Your task to perform on an android device: star an email in the gmail app Image 0: 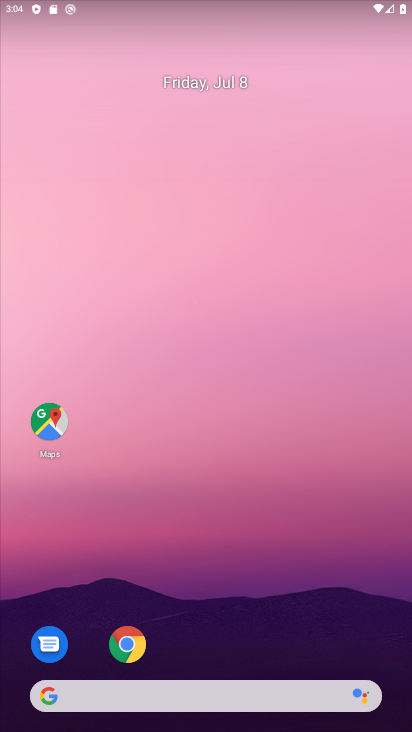
Step 0: drag from (126, 531) to (383, 21)
Your task to perform on an android device: star an email in the gmail app Image 1: 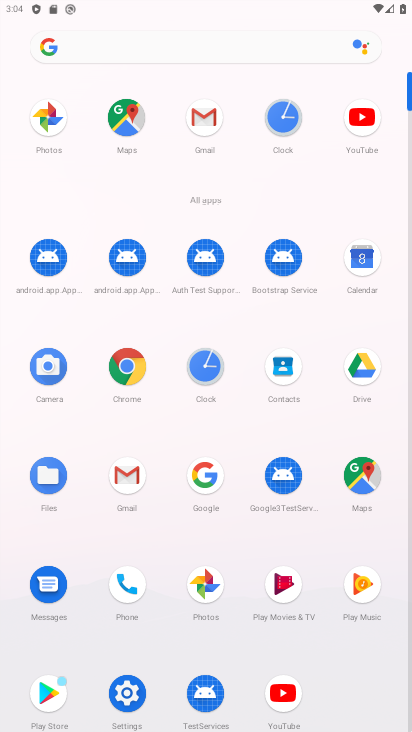
Step 1: click (129, 469)
Your task to perform on an android device: star an email in the gmail app Image 2: 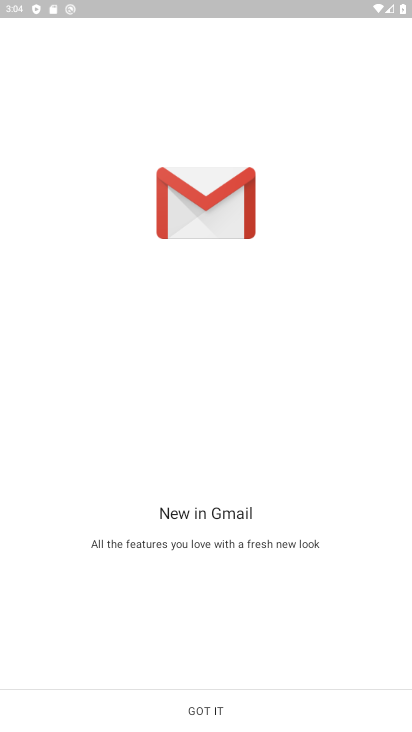
Step 2: click (170, 696)
Your task to perform on an android device: star an email in the gmail app Image 3: 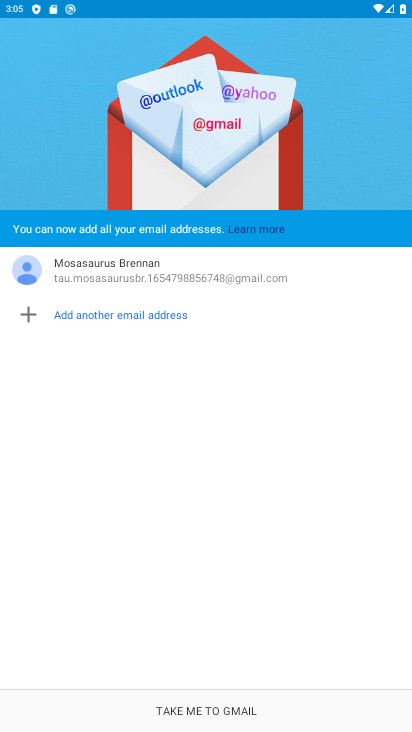
Step 3: click (175, 700)
Your task to perform on an android device: star an email in the gmail app Image 4: 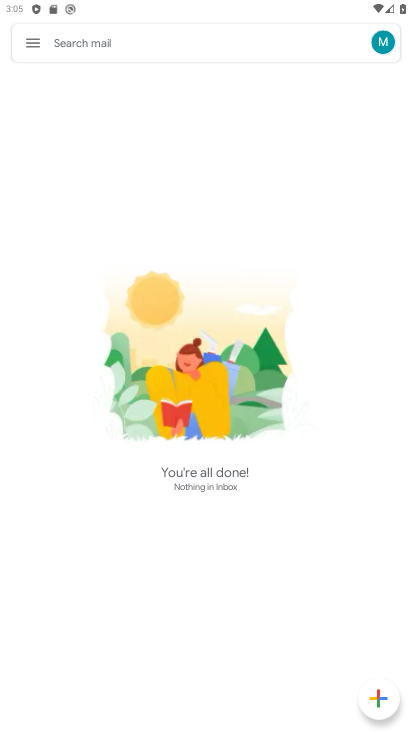
Step 4: click (37, 39)
Your task to perform on an android device: star an email in the gmail app Image 5: 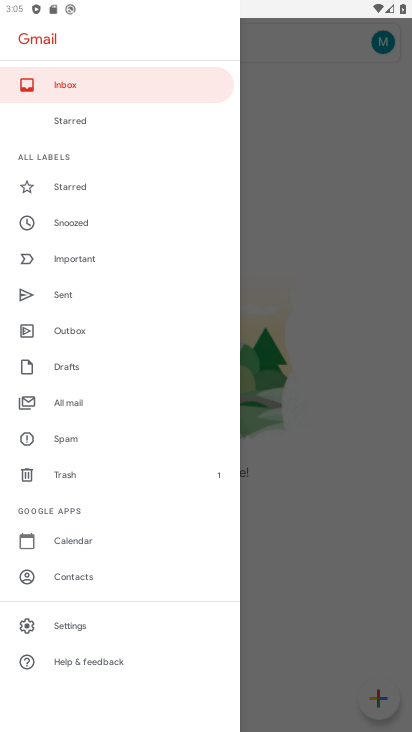
Step 5: click (61, 71)
Your task to perform on an android device: star an email in the gmail app Image 6: 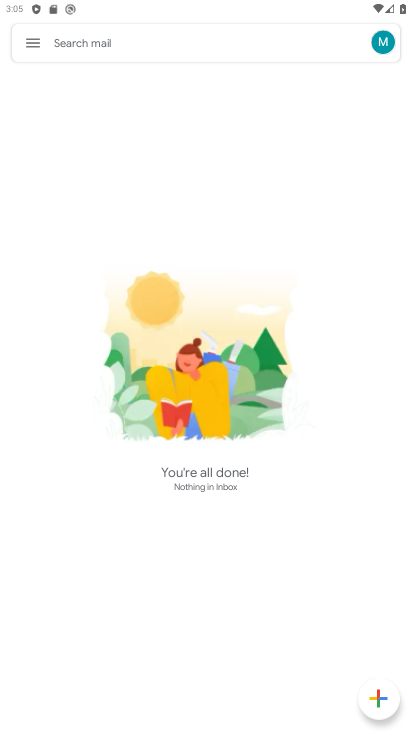
Step 6: task complete